Your task to perform on an android device: Turn on the flashlight Image 0: 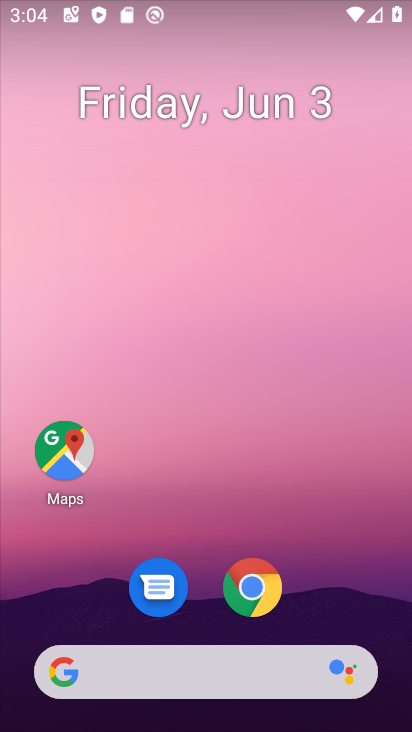
Step 0: drag from (231, 686) to (245, 53)
Your task to perform on an android device: Turn on the flashlight Image 1: 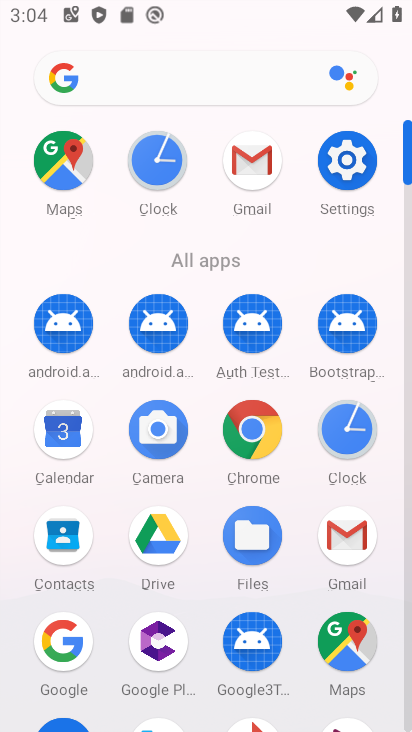
Step 1: click (345, 173)
Your task to perform on an android device: Turn on the flashlight Image 2: 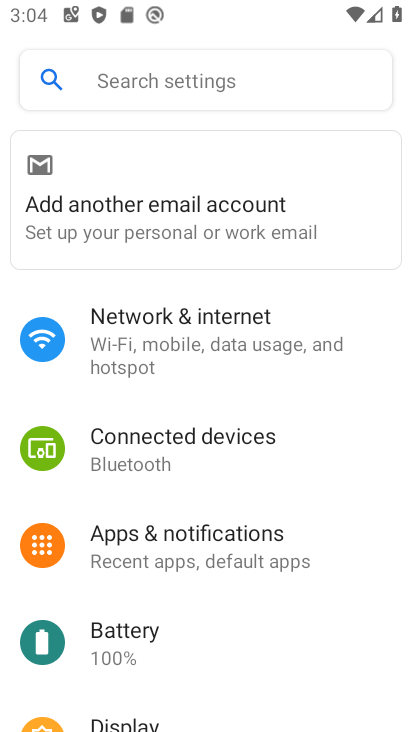
Step 2: task complete